Your task to perform on an android device: What's the weather going to be this weekend? Image 0: 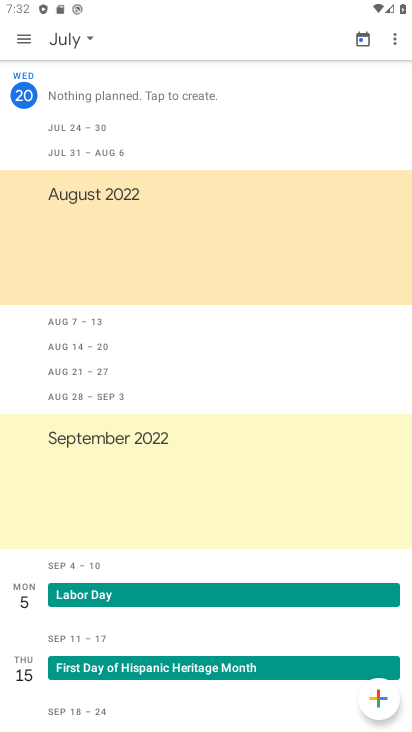
Step 0: press home button
Your task to perform on an android device: What's the weather going to be this weekend? Image 1: 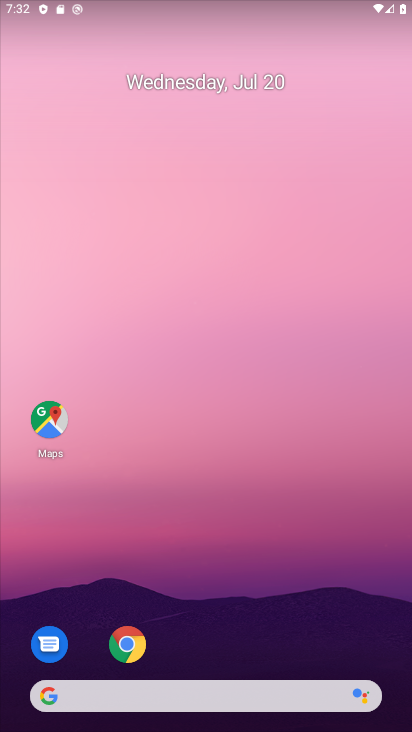
Step 1: drag from (230, 697) to (243, 17)
Your task to perform on an android device: What's the weather going to be this weekend? Image 2: 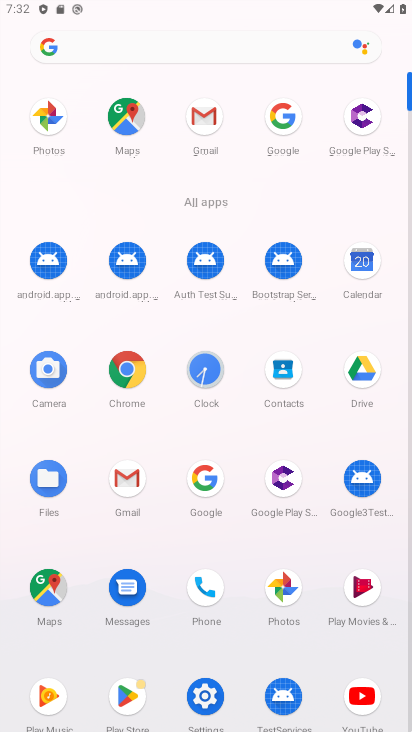
Step 2: click (213, 479)
Your task to perform on an android device: What's the weather going to be this weekend? Image 3: 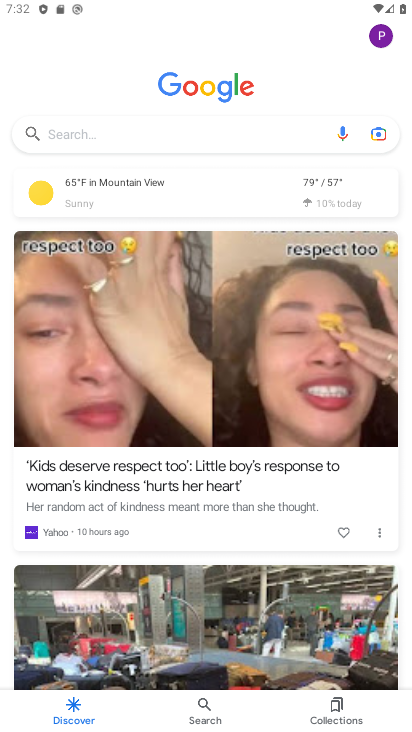
Step 3: click (154, 144)
Your task to perform on an android device: What's the weather going to be this weekend? Image 4: 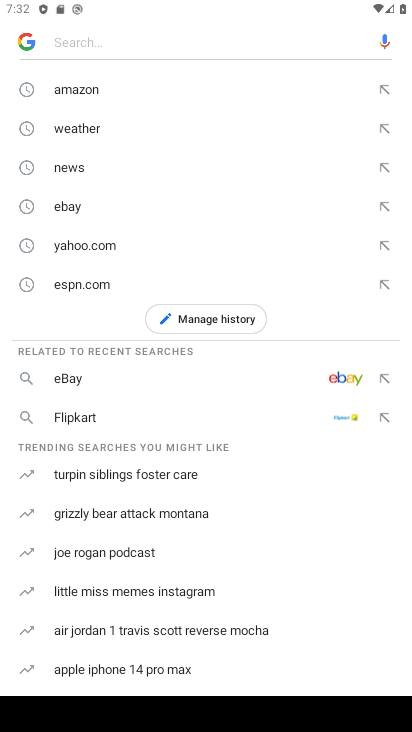
Step 4: click (226, 319)
Your task to perform on an android device: What's the weather going to be this weekend? Image 5: 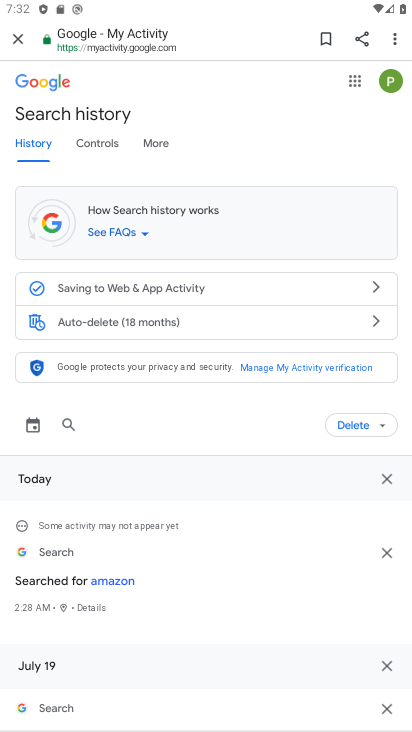
Step 5: click (21, 33)
Your task to perform on an android device: What's the weather going to be this weekend? Image 6: 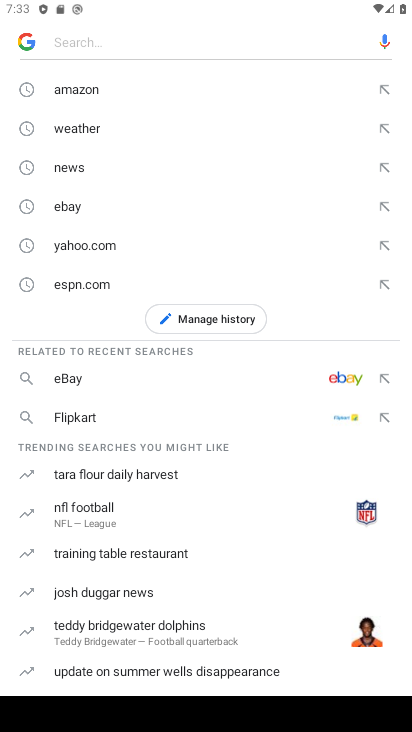
Step 6: type "What's the weather going to be this weekend?"
Your task to perform on an android device: What's the weather going to be this weekend? Image 7: 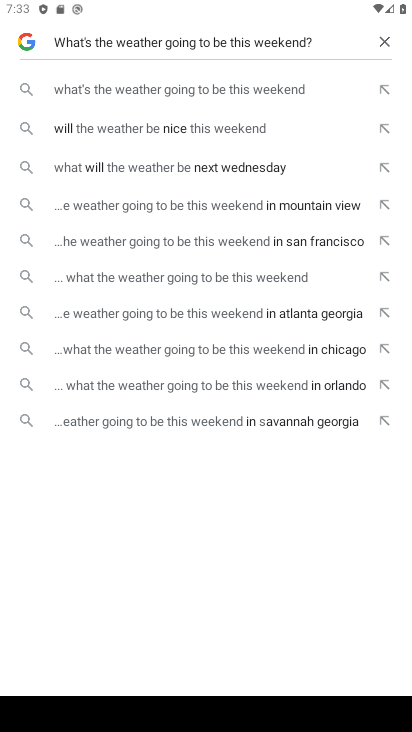
Step 7: click (101, 93)
Your task to perform on an android device: What's the weather going to be this weekend? Image 8: 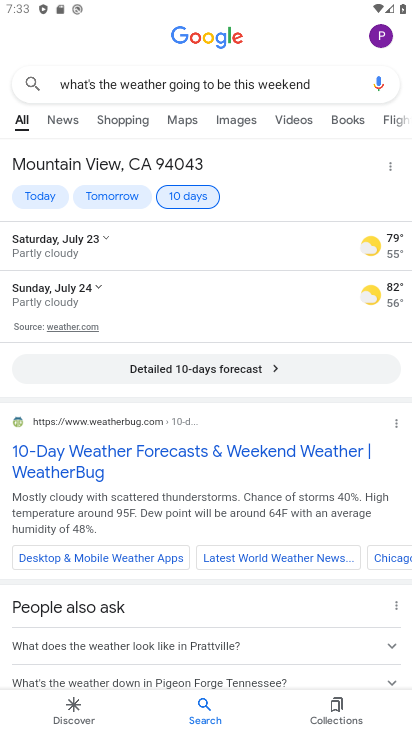
Step 8: click (157, 368)
Your task to perform on an android device: What's the weather going to be this weekend? Image 9: 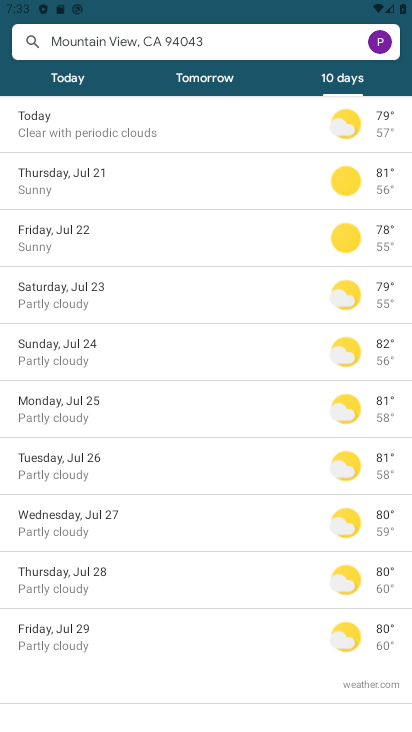
Step 9: task complete